Your task to perform on an android device: show emergency info Image 0: 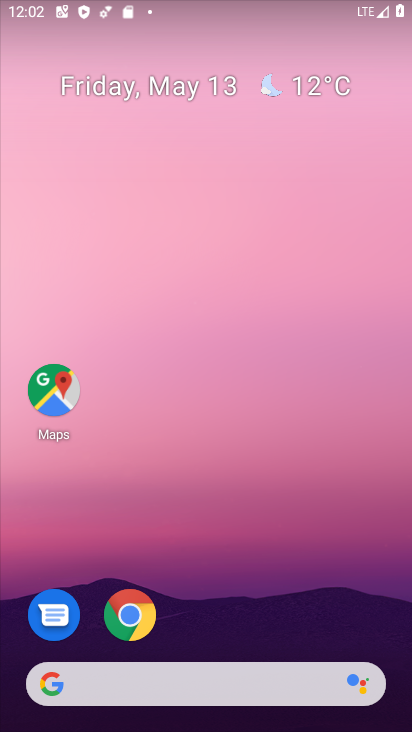
Step 0: drag from (227, 631) to (261, 173)
Your task to perform on an android device: show emergency info Image 1: 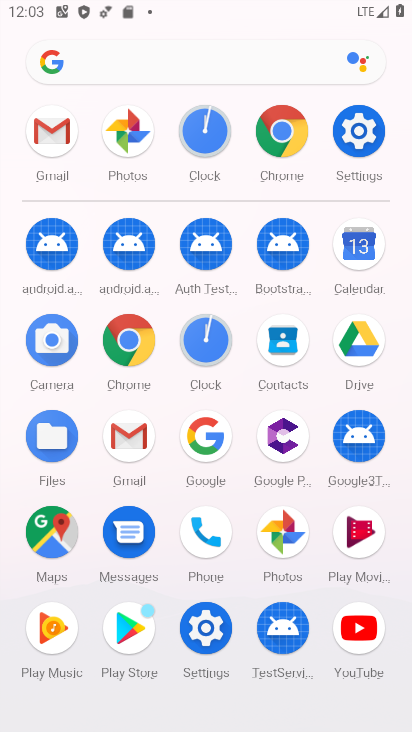
Step 1: click (344, 135)
Your task to perform on an android device: show emergency info Image 2: 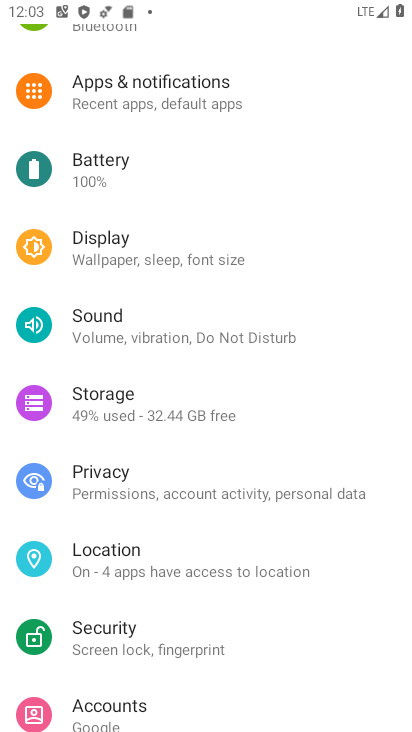
Step 2: drag from (191, 624) to (225, 196)
Your task to perform on an android device: show emergency info Image 3: 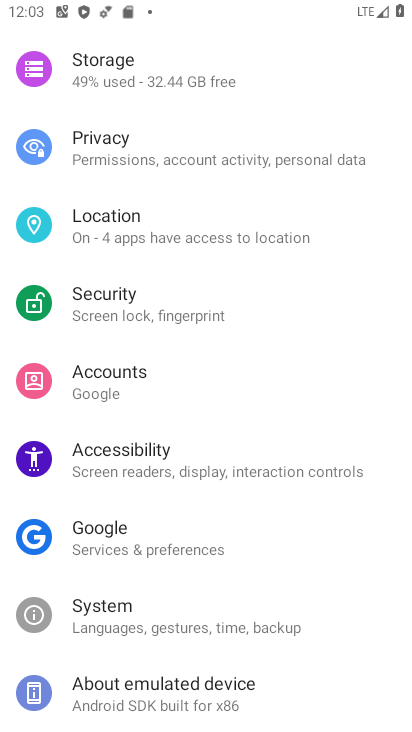
Step 3: drag from (186, 644) to (202, 270)
Your task to perform on an android device: show emergency info Image 4: 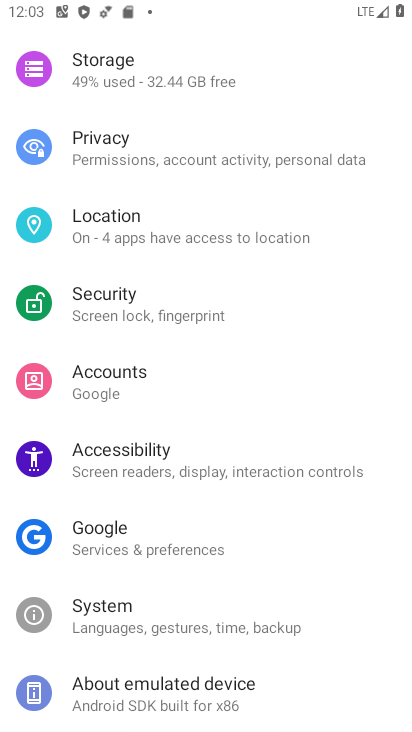
Step 4: click (126, 660)
Your task to perform on an android device: show emergency info Image 5: 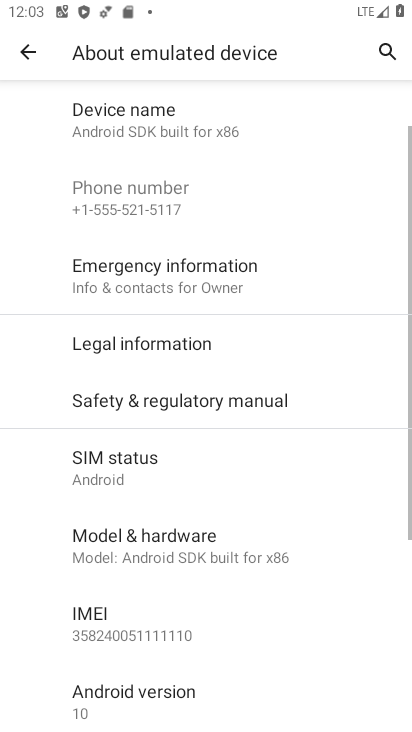
Step 5: drag from (161, 547) to (175, 372)
Your task to perform on an android device: show emergency info Image 6: 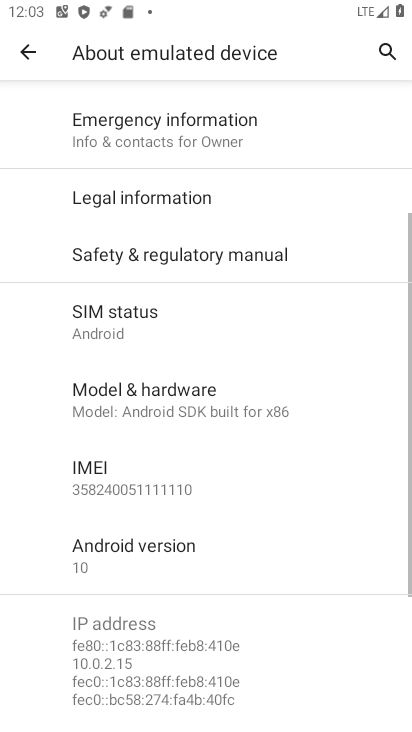
Step 6: click (247, 105)
Your task to perform on an android device: show emergency info Image 7: 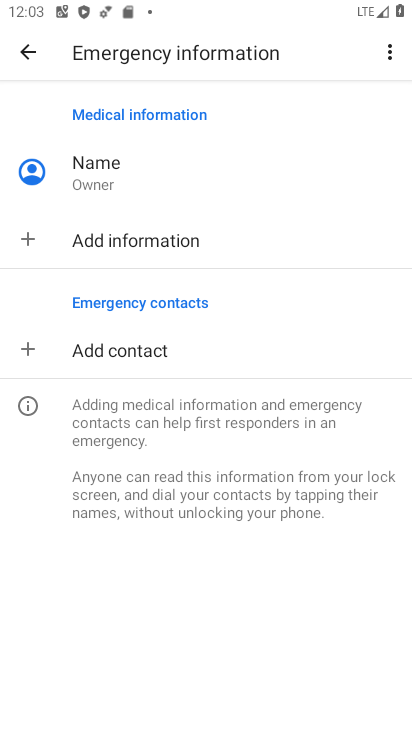
Step 7: task complete